Your task to perform on an android device: turn pop-ups on in chrome Image 0: 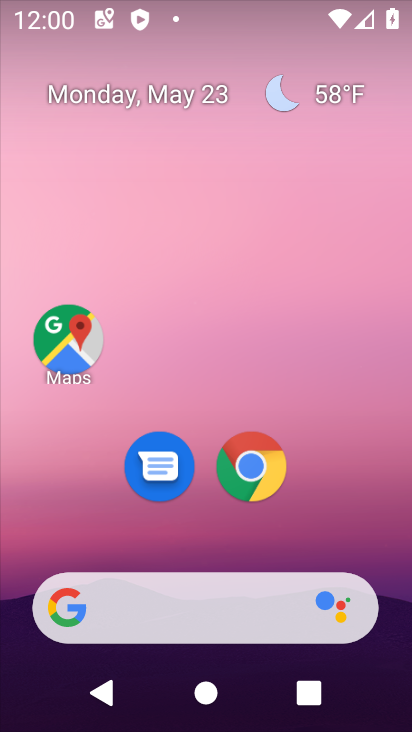
Step 0: click (249, 471)
Your task to perform on an android device: turn pop-ups on in chrome Image 1: 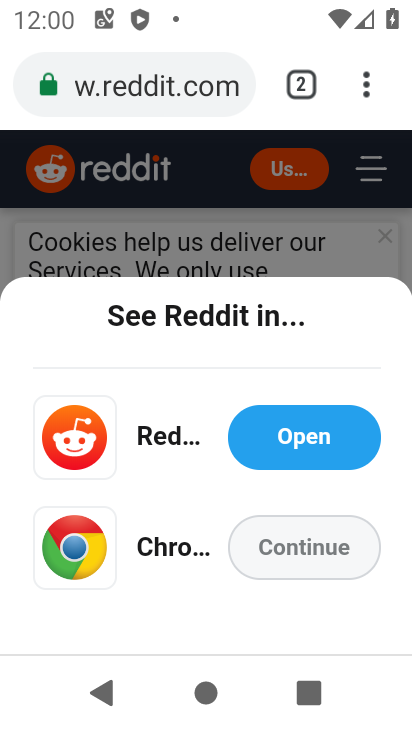
Step 1: click (356, 95)
Your task to perform on an android device: turn pop-ups on in chrome Image 2: 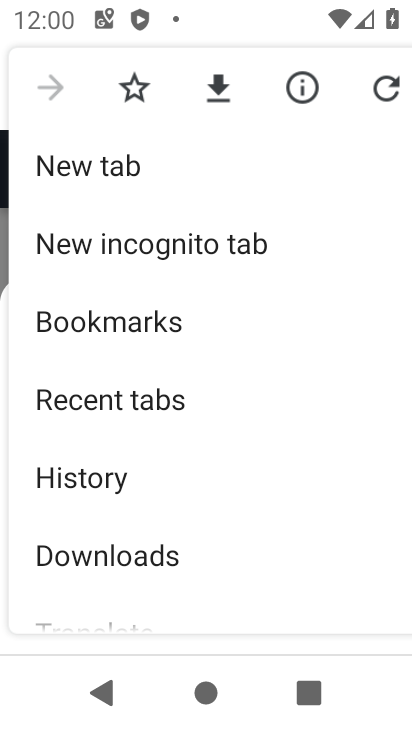
Step 2: drag from (256, 587) to (231, 100)
Your task to perform on an android device: turn pop-ups on in chrome Image 3: 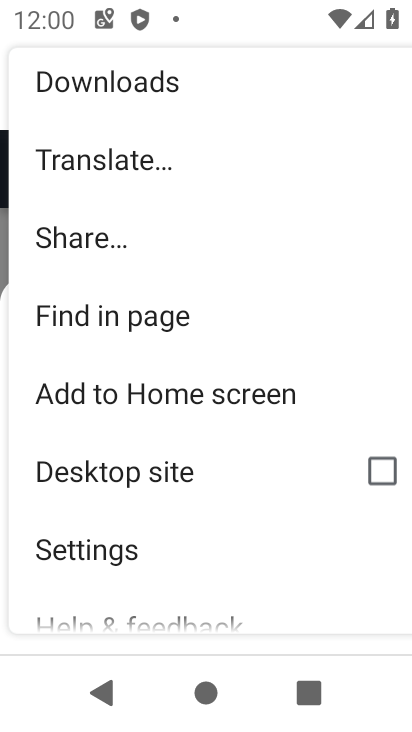
Step 3: click (99, 551)
Your task to perform on an android device: turn pop-ups on in chrome Image 4: 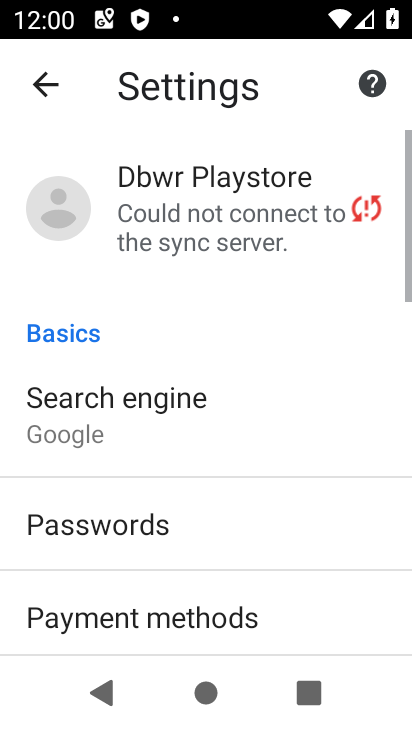
Step 4: drag from (201, 550) to (226, 117)
Your task to perform on an android device: turn pop-ups on in chrome Image 5: 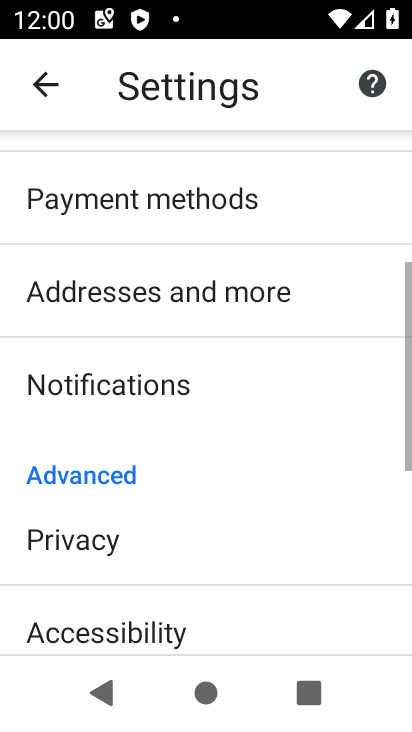
Step 5: drag from (203, 600) to (169, 201)
Your task to perform on an android device: turn pop-ups on in chrome Image 6: 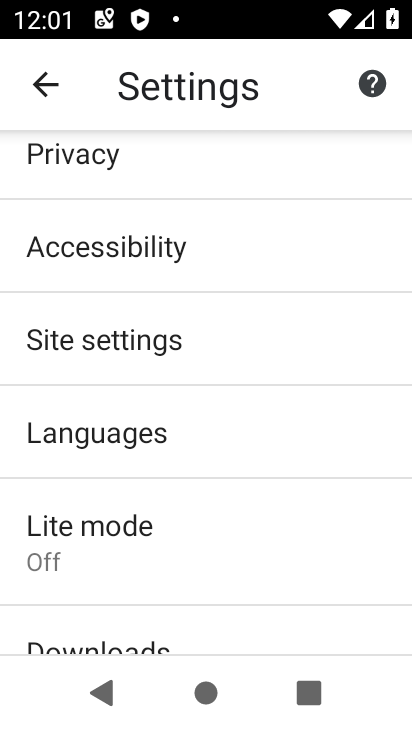
Step 6: click (155, 336)
Your task to perform on an android device: turn pop-ups on in chrome Image 7: 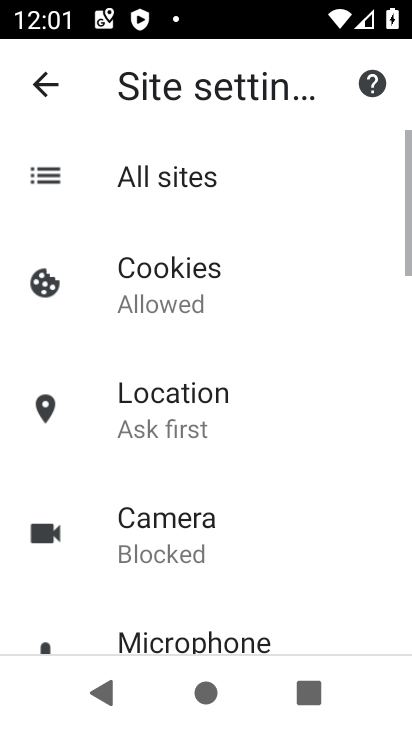
Step 7: drag from (200, 583) to (239, 155)
Your task to perform on an android device: turn pop-ups on in chrome Image 8: 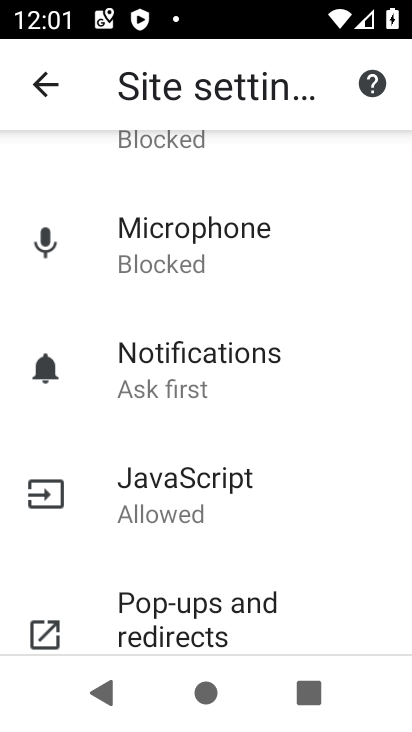
Step 8: click (162, 610)
Your task to perform on an android device: turn pop-ups on in chrome Image 9: 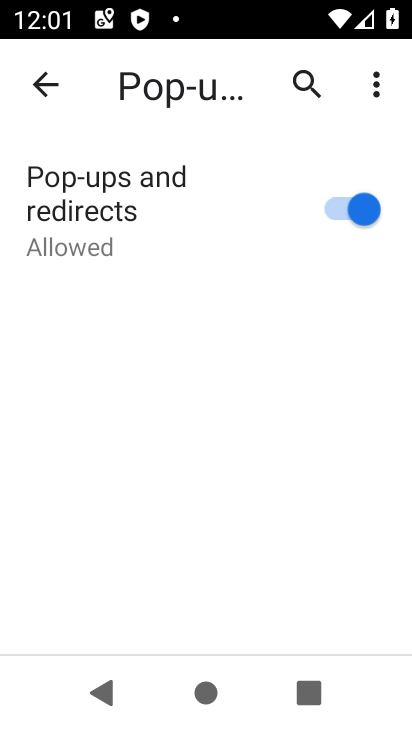
Step 9: task complete